Your task to perform on an android device: Search for seafood restaurants on Google Maps Image 0: 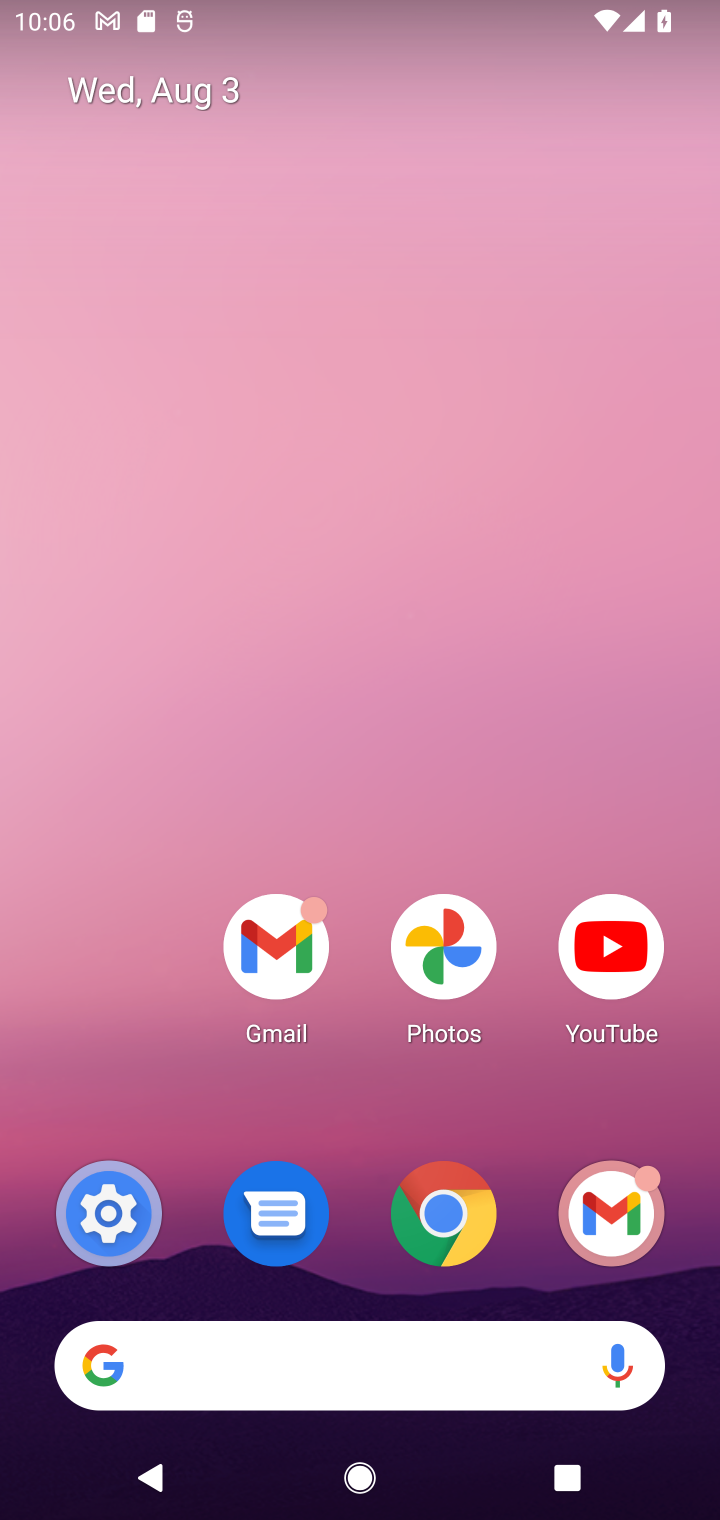
Step 0: drag from (343, 1181) to (588, 279)
Your task to perform on an android device: Search for seafood restaurants on Google Maps Image 1: 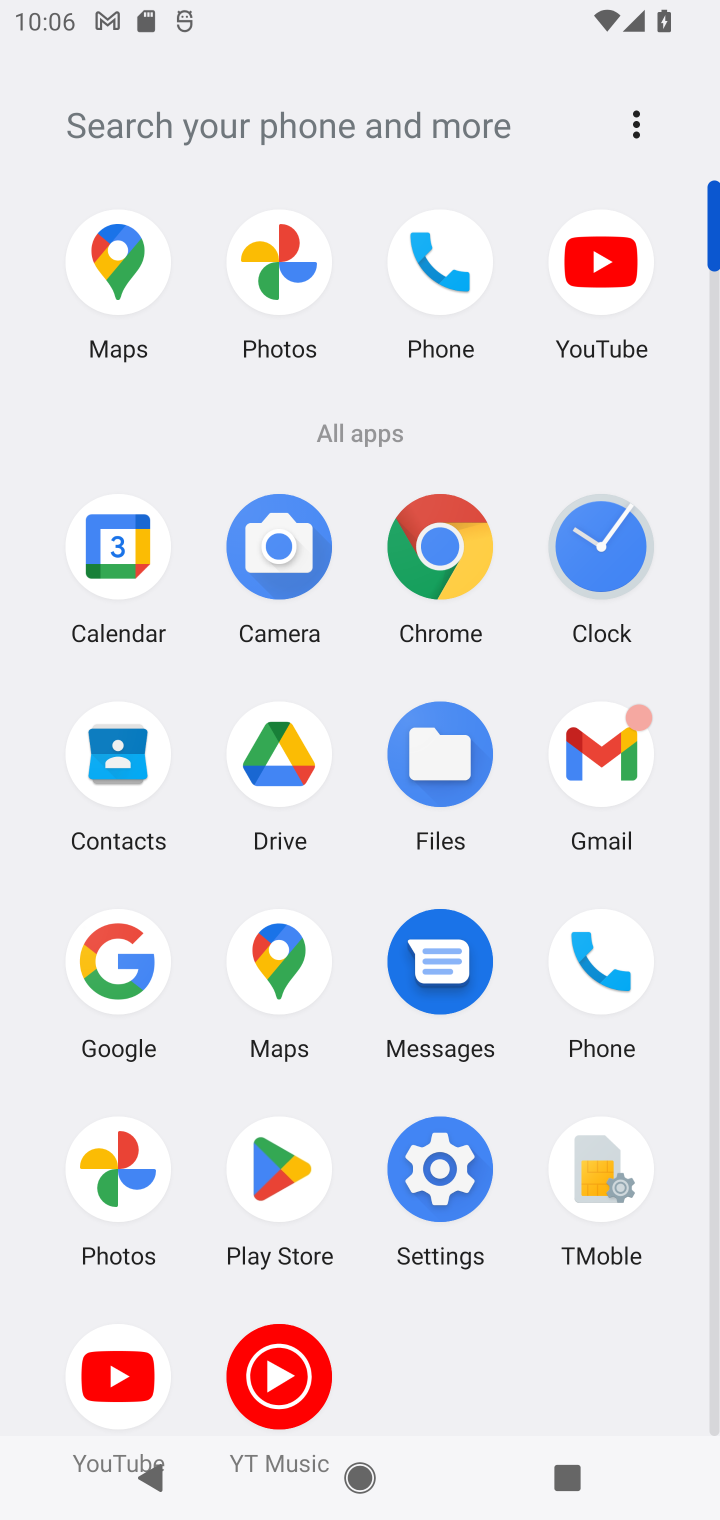
Step 1: click (259, 984)
Your task to perform on an android device: Search for seafood restaurants on Google Maps Image 2: 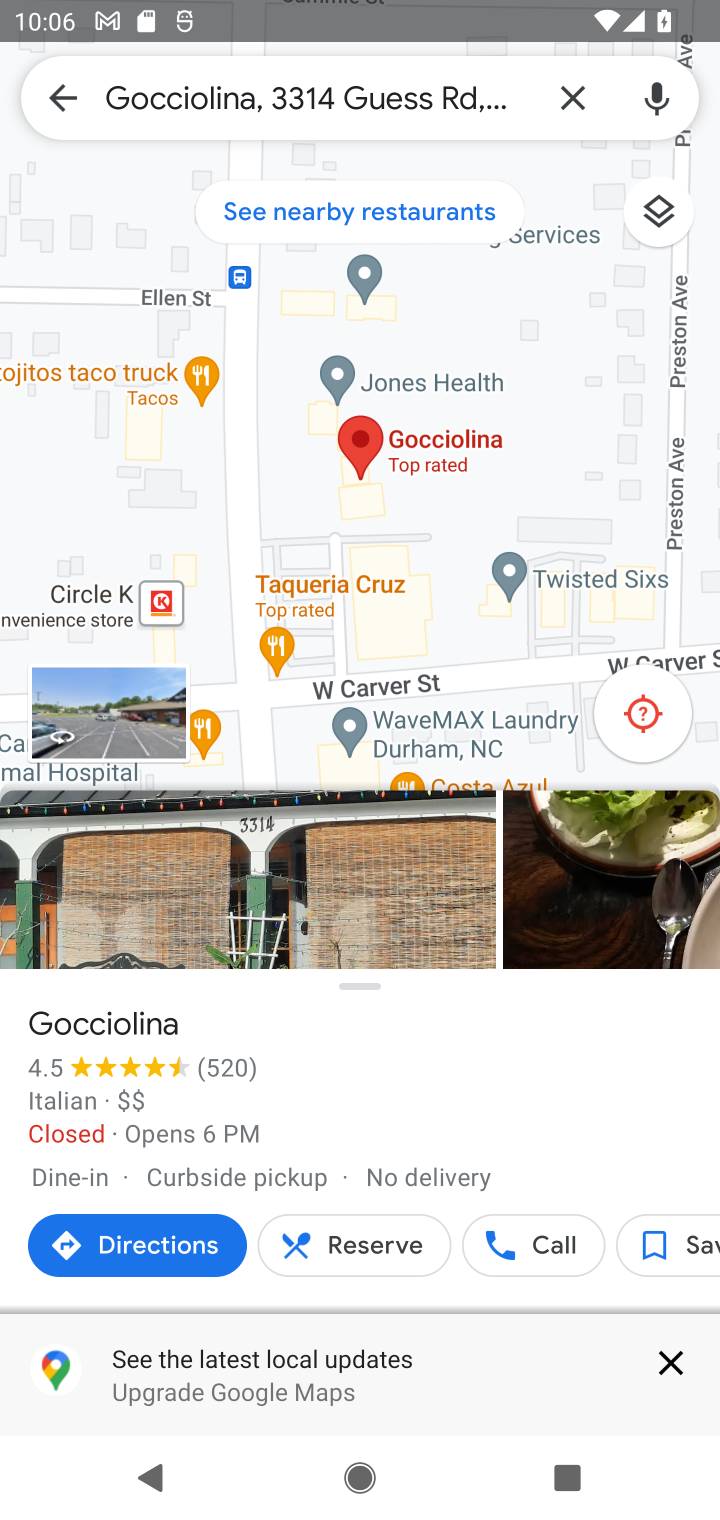
Step 2: click (73, 90)
Your task to perform on an android device: Search for seafood restaurants on Google Maps Image 3: 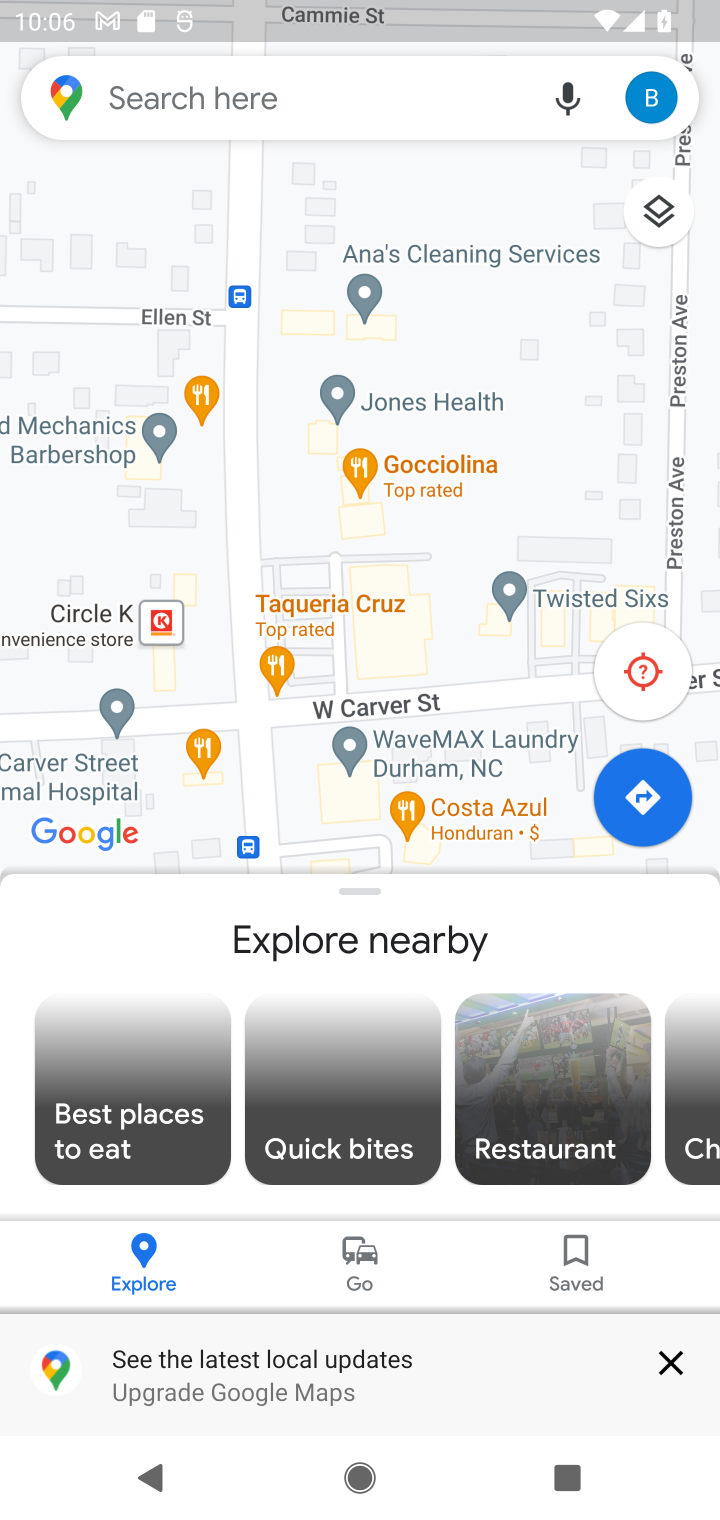
Step 3: click (121, 90)
Your task to perform on an android device: Search for seafood restaurants on Google Maps Image 4: 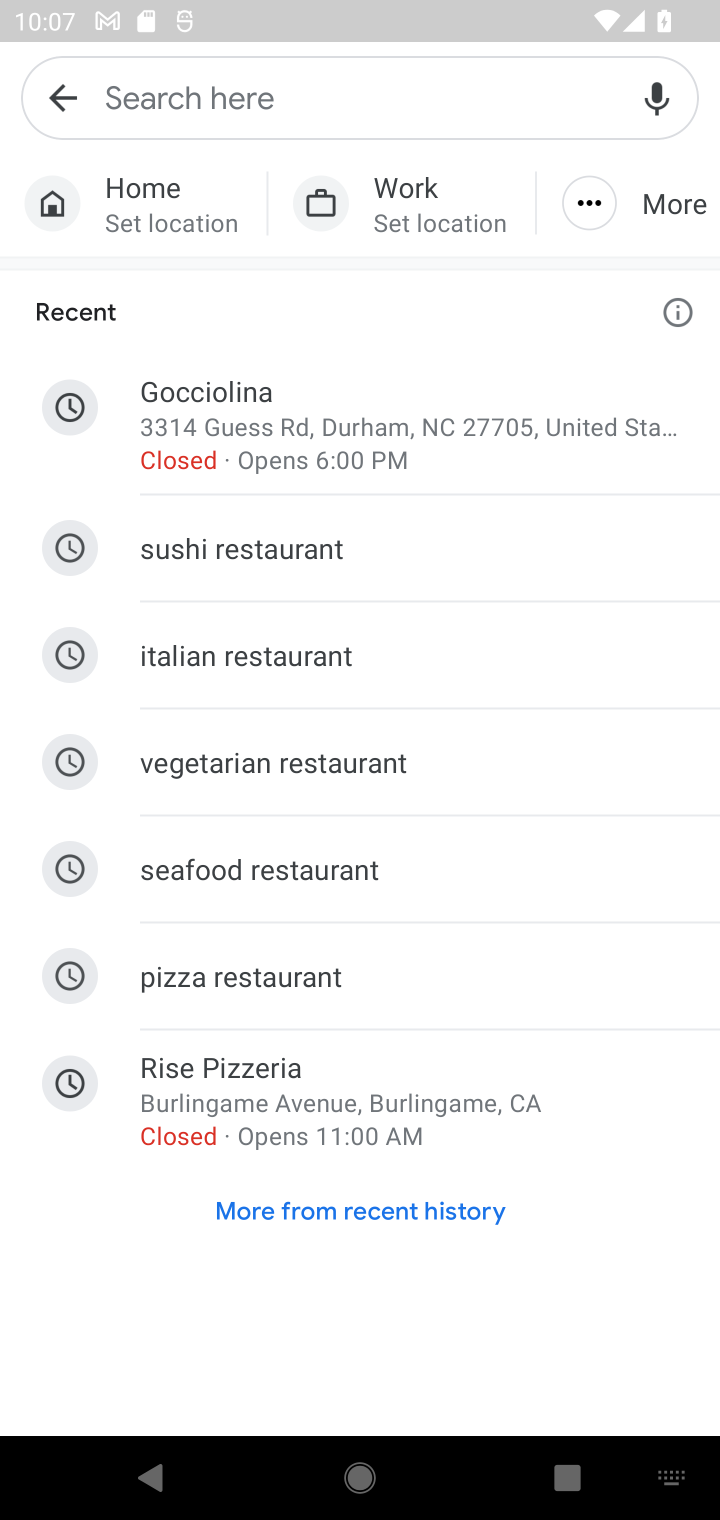
Step 4: type "seafood restaurants"
Your task to perform on an android device: Search for seafood restaurants on Google Maps Image 5: 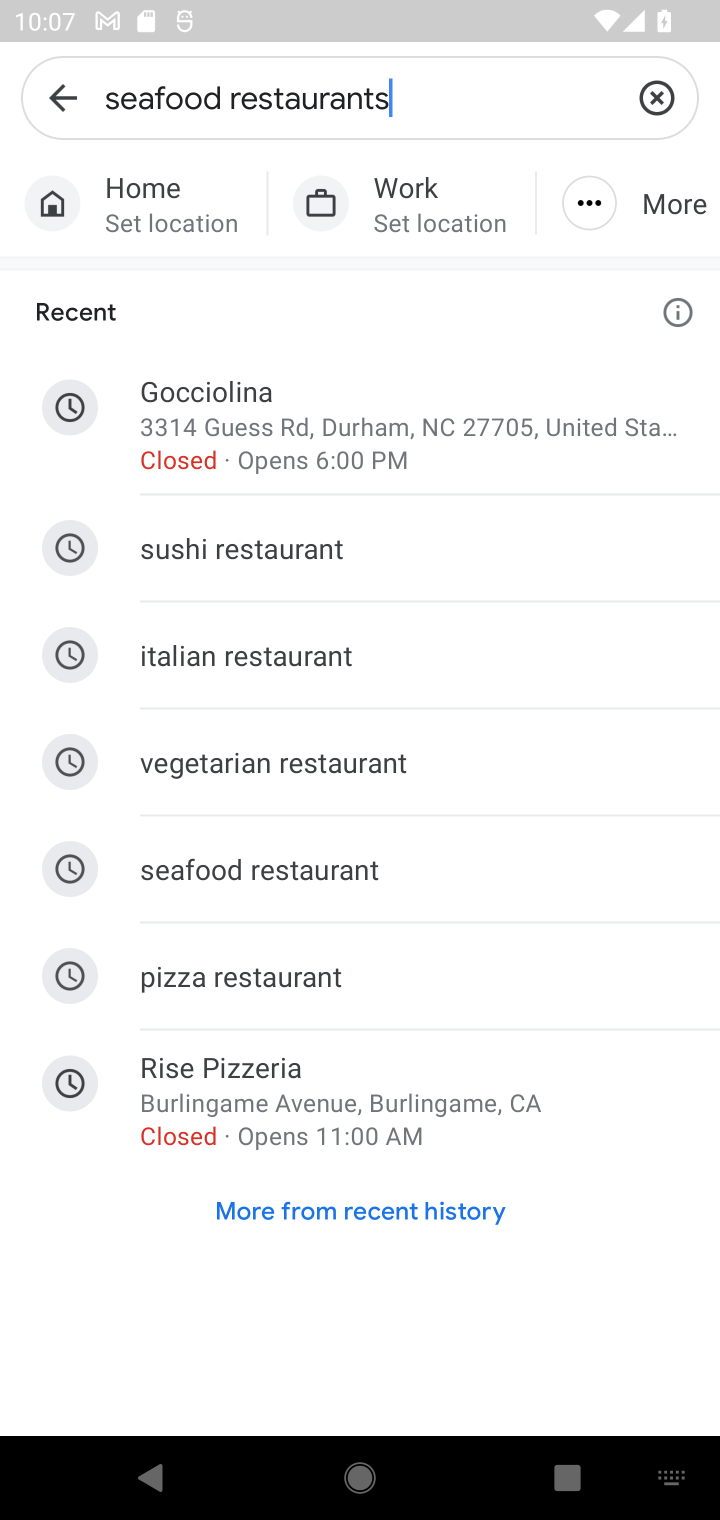
Step 5: type ""
Your task to perform on an android device: Search for seafood restaurants on Google Maps Image 6: 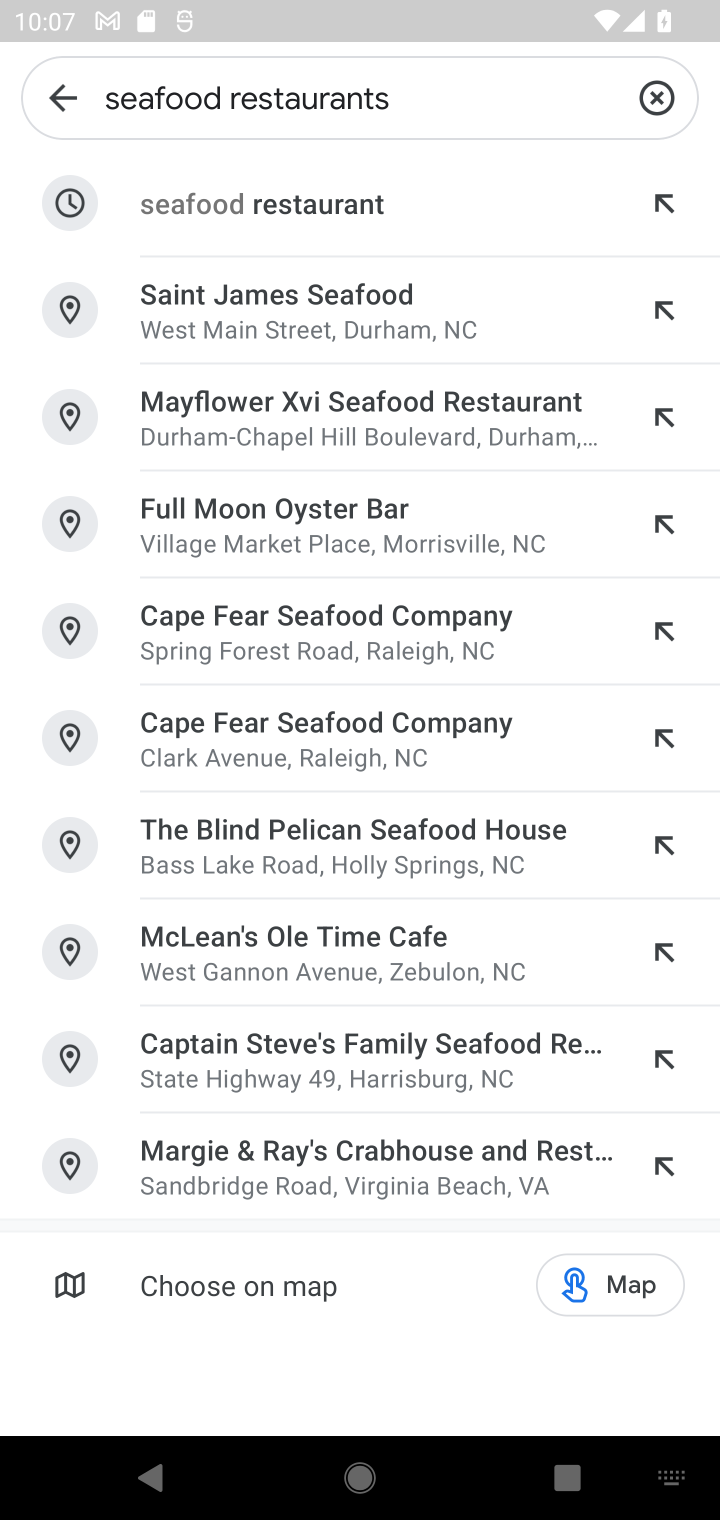
Step 6: click (145, 171)
Your task to perform on an android device: Search for seafood restaurants on Google Maps Image 7: 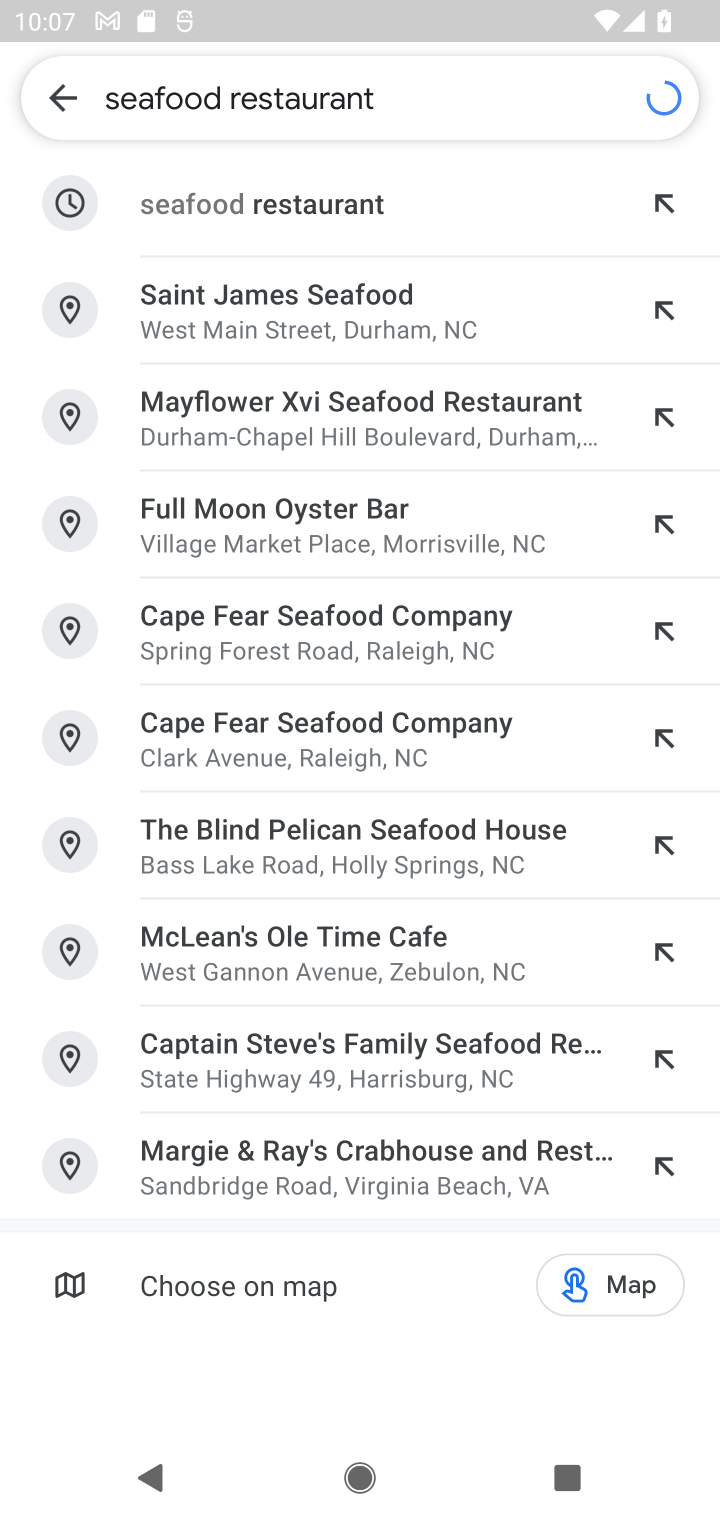
Step 7: click (118, 194)
Your task to perform on an android device: Search for seafood restaurants on Google Maps Image 8: 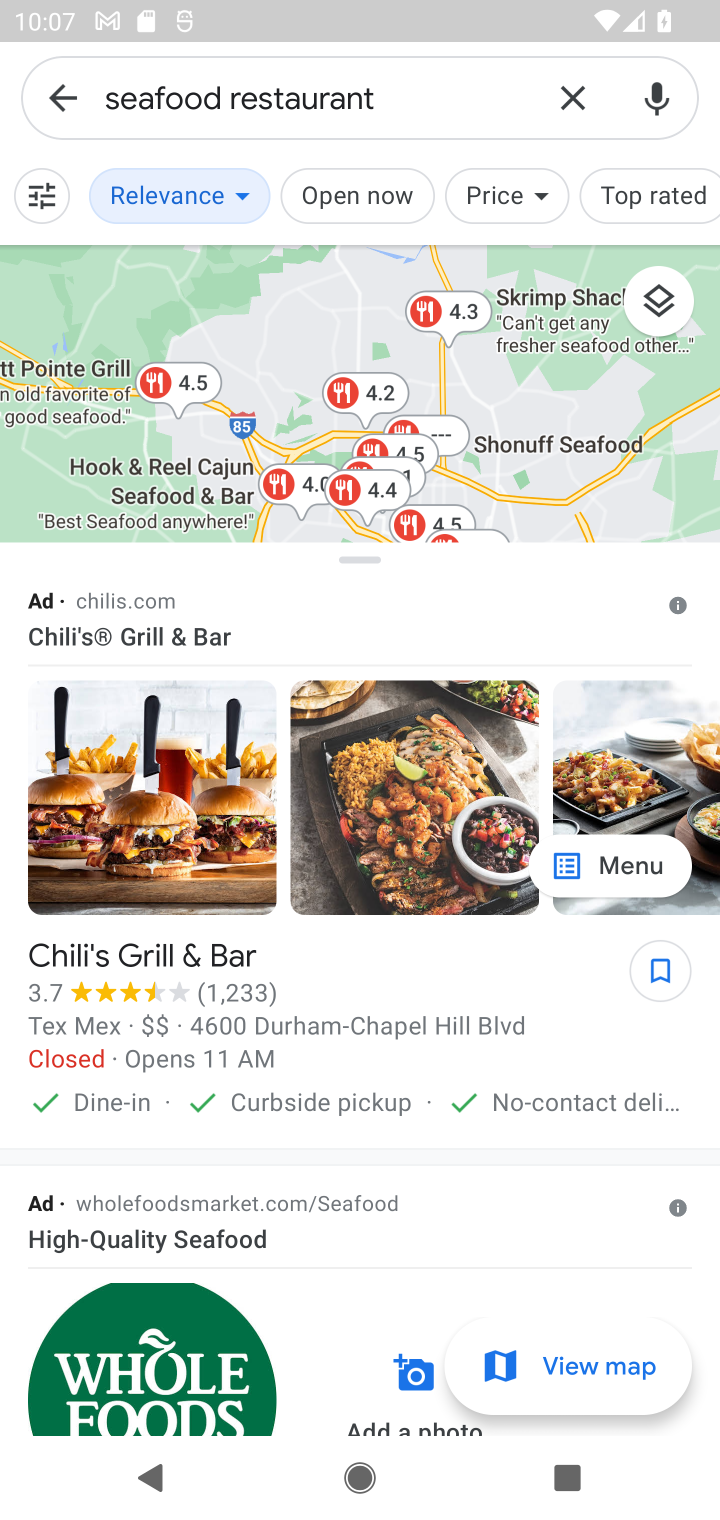
Step 8: task complete